Your task to perform on an android device: toggle improve location accuracy Image 0: 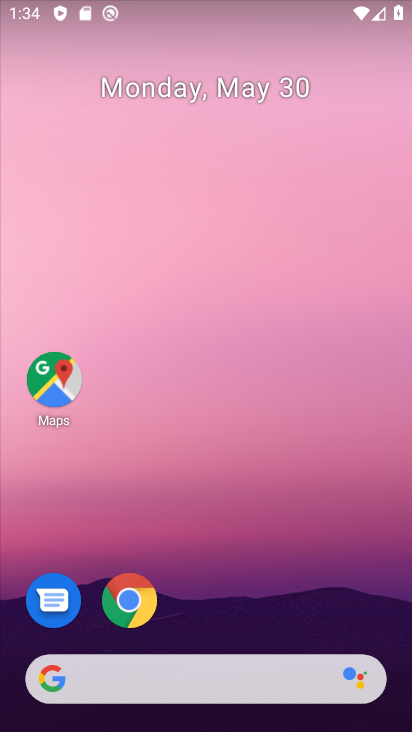
Step 0: drag from (200, 653) to (187, 43)
Your task to perform on an android device: toggle improve location accuracy Image 1: 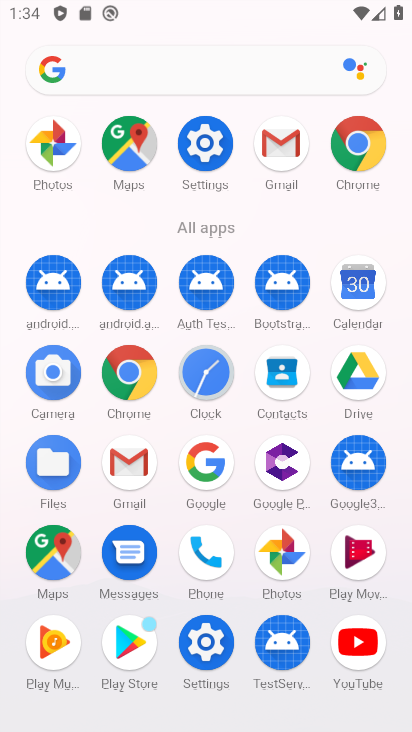
Step 1: click (213, 160)
Your task to perform on an android device: toggle improve location accuracy Image 2: 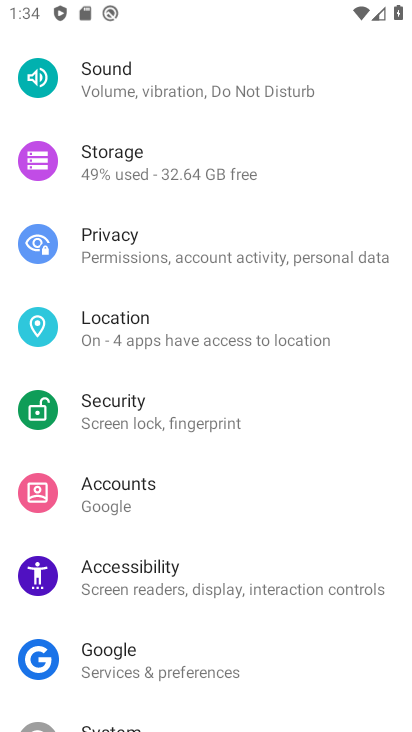
Step 2: click (92, 340)
Your task to perform on an android device: toggle improve location accuracy Image 3: 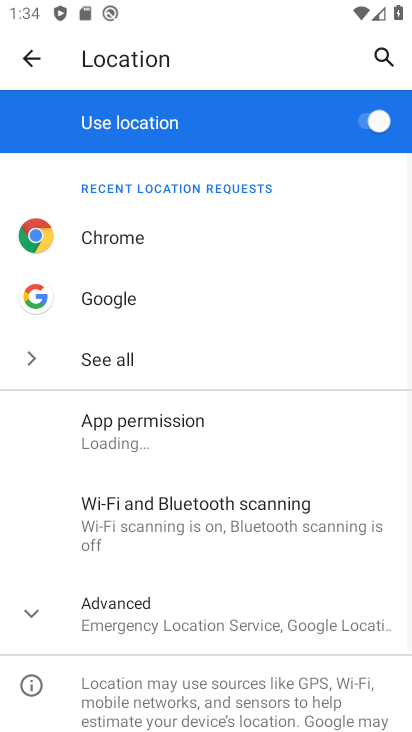
Step 3: click (215, 609)
Your task to perform on an android device: toggle improve location accuracy Image 4: 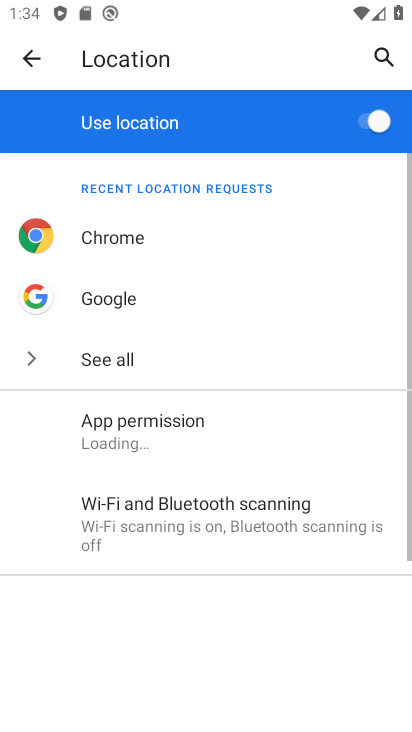
Step 4: drag from (215, 609) to (208, 352)
Your task to perform on an android device: toggle improve location accuracy Image 5: 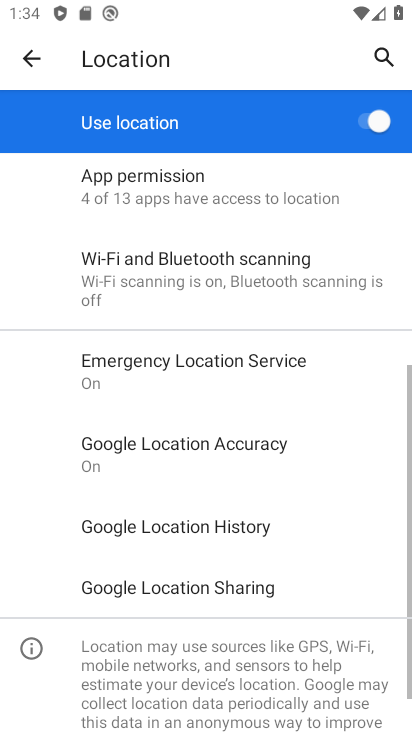
Step 5: click (208, 446)
Your task to perform on an android device: toggle improve location accuracy Image 6: 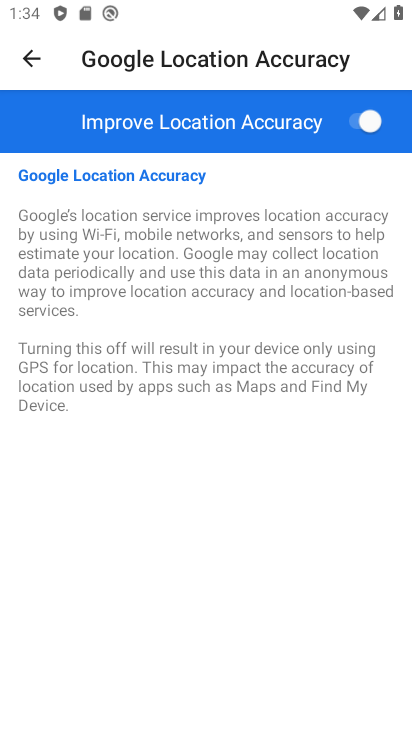
Step 6: click (362, 118)
Your task to perform on an android device: toggle improve location accuracy Image 7: 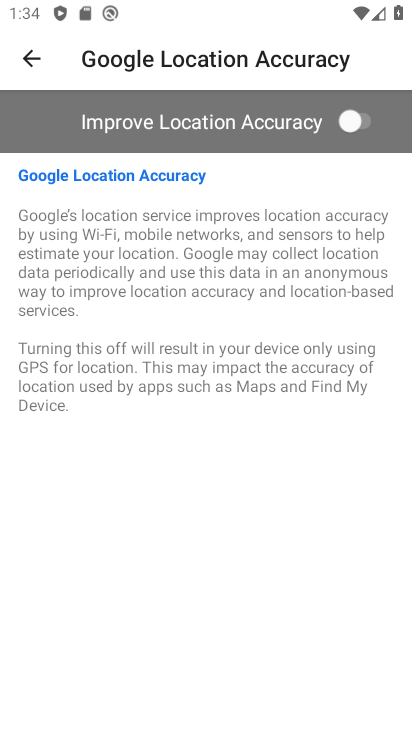
Step 7: task complete